Your task to perform on an android device: turn on data saver in the chrome app Image 0: 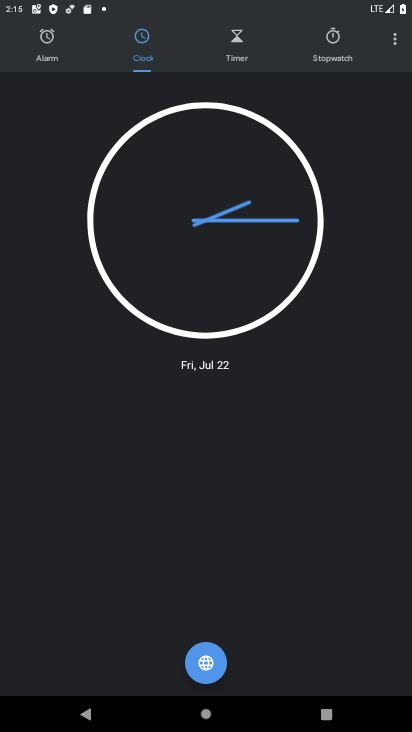
Step 0: press home button
Your task to perform on an android device: turn on data saver in the chrome app Image 1: 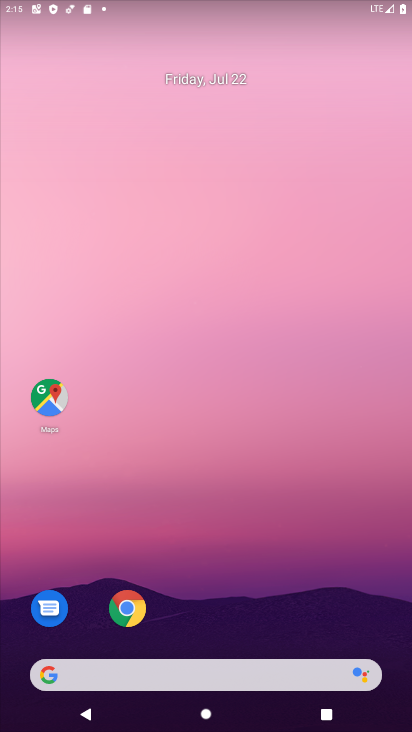
Step 1: click (123, 611)
Your task to perform on an android device: turn on data saver in the chrome app Image 2: 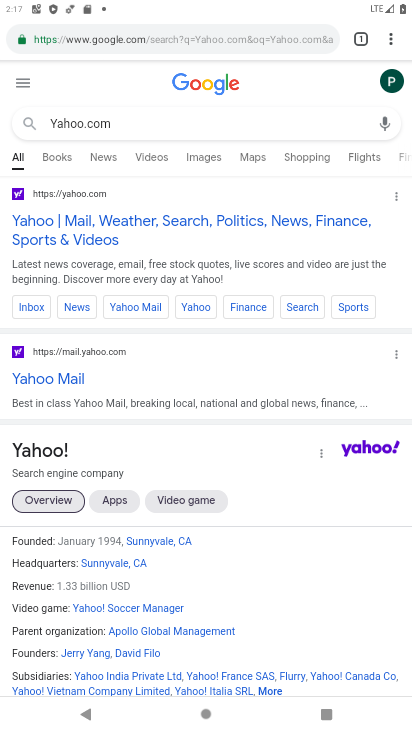
Step 2: click (315, 39)
Your task to perform on an android device: turn on data saver in the chrome app Image 3: 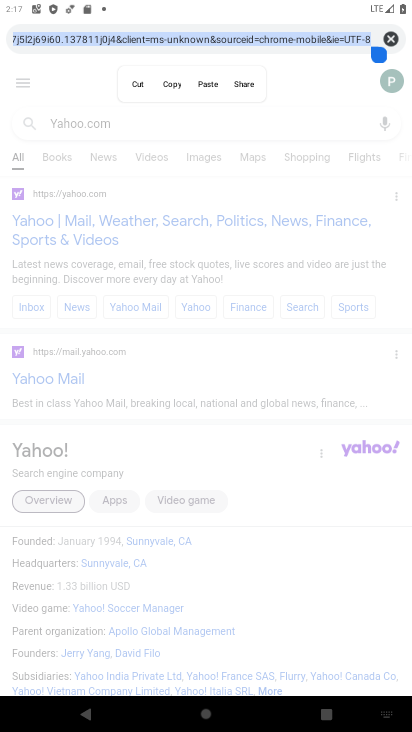
Step 3: click (394, 40)
Your task to perform on an android device: turn on data saver in the chrome app Image 4: 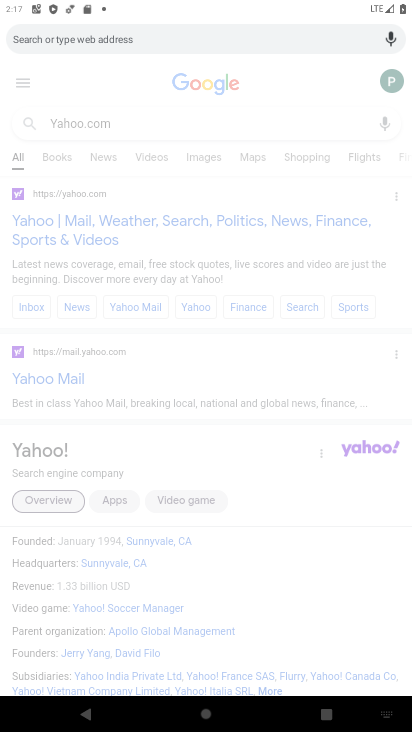
Step 4: task complete